Your task to perform on an android device: Open Google Chrome Image 0: 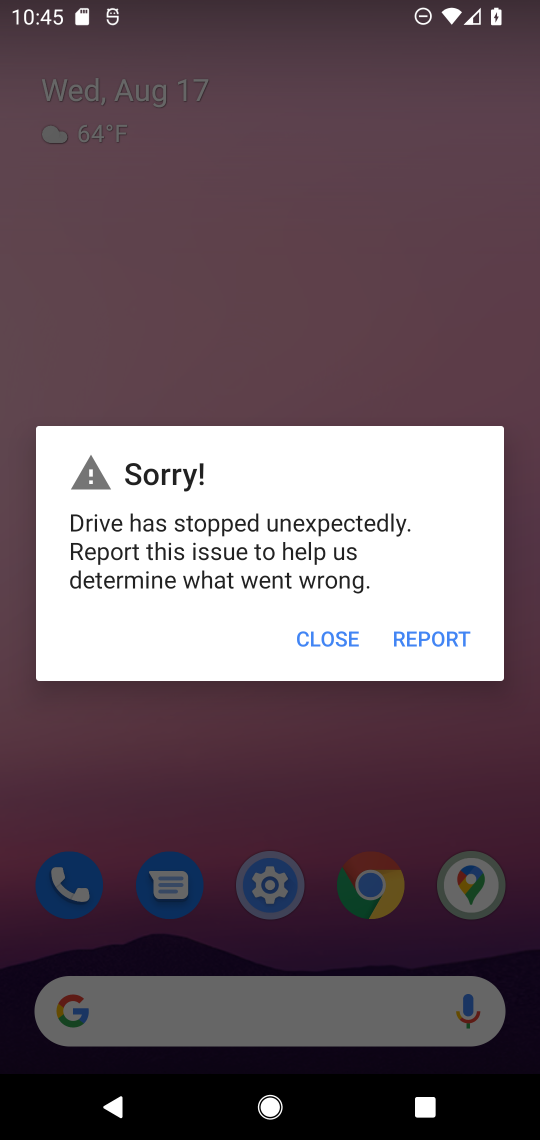
Step 0: press home button
Your task to perform on an android device: Open Google Chrome Image 1: 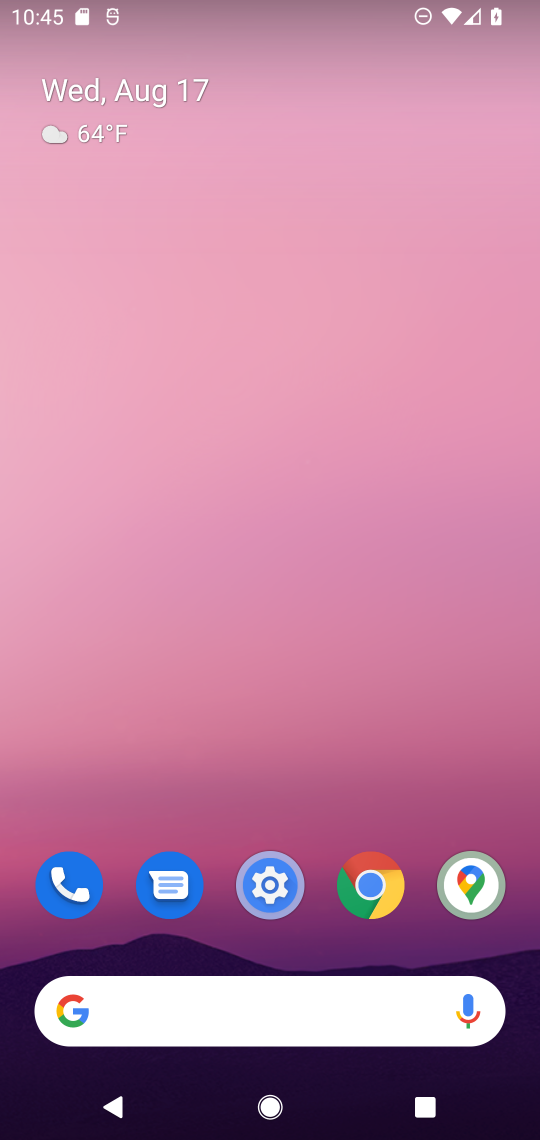
Step 1: click (372, 882)
Your task to perform on an android device: Open Google Chrome Image 2: 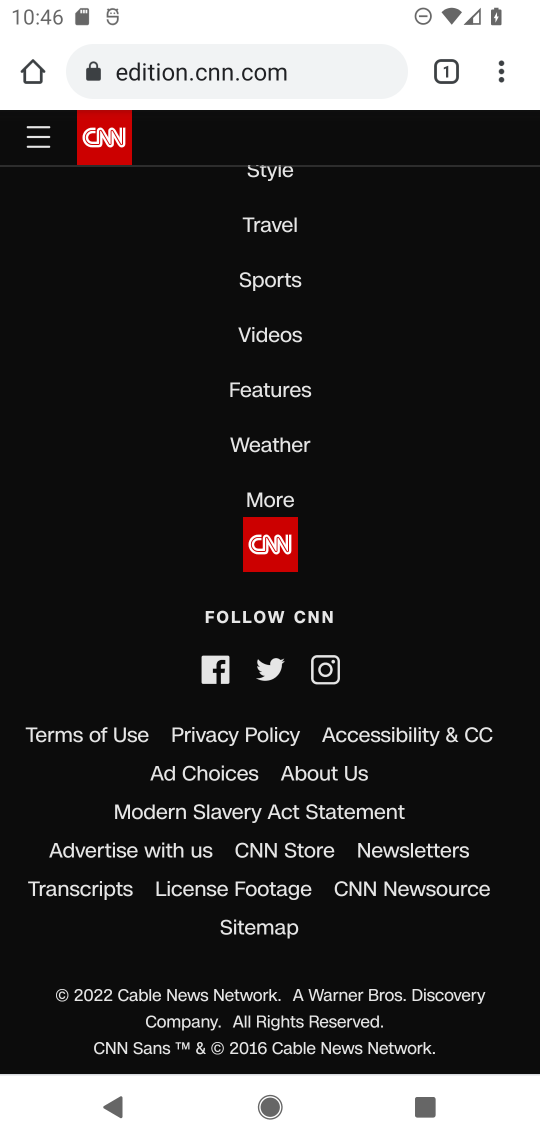
Step 2: task complete